Your task to perform on an android device: install app "Google News" Image 0: 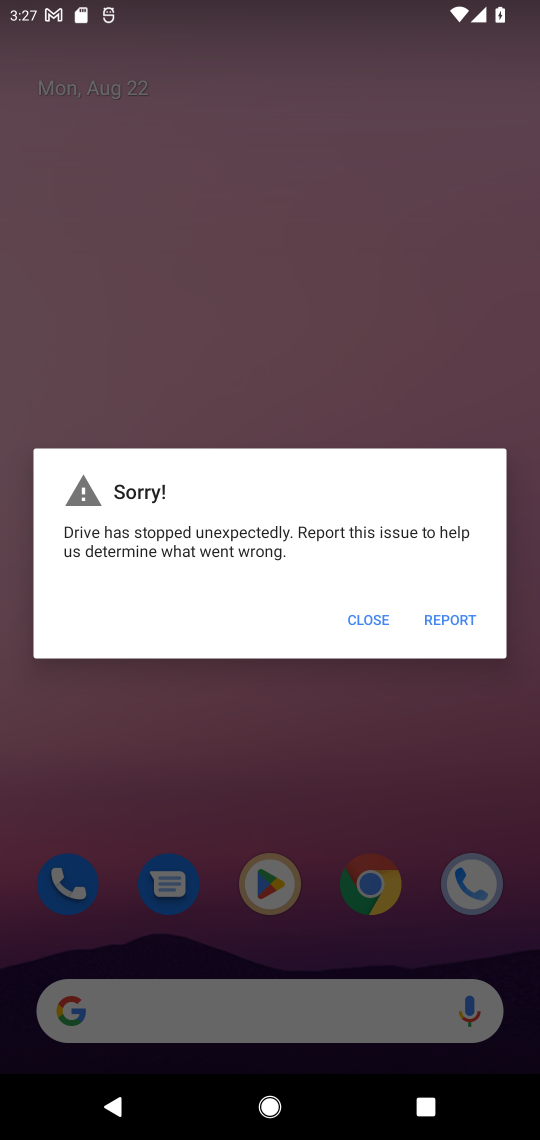
Step 0: click (369, 613)
Your task to perform on an android device: install app "Google News" Image 1: 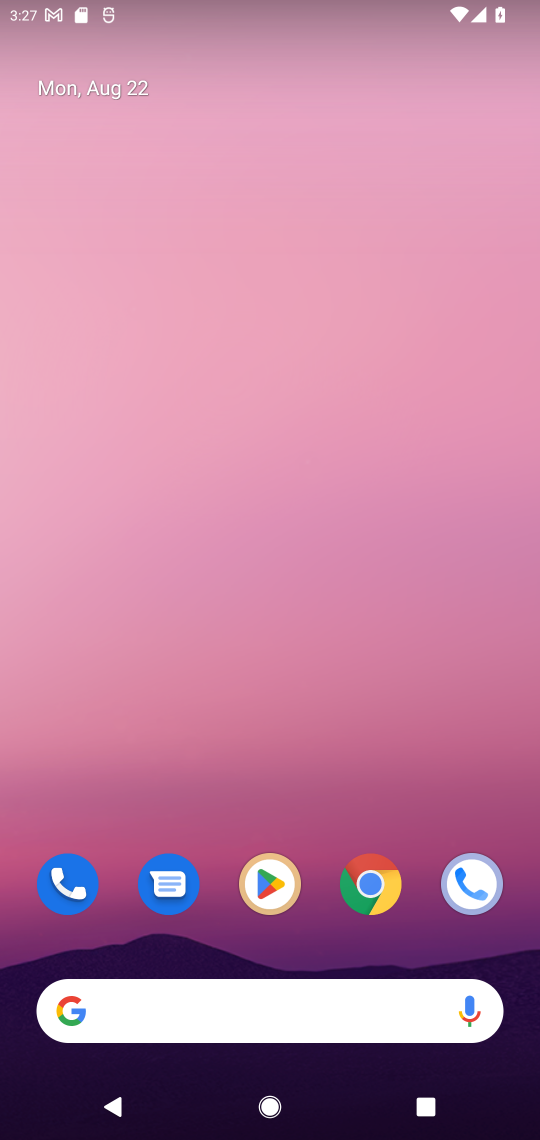
Step 1: click (251, 903)
Your task to perform on an android device: install app "Google News" Image 2: 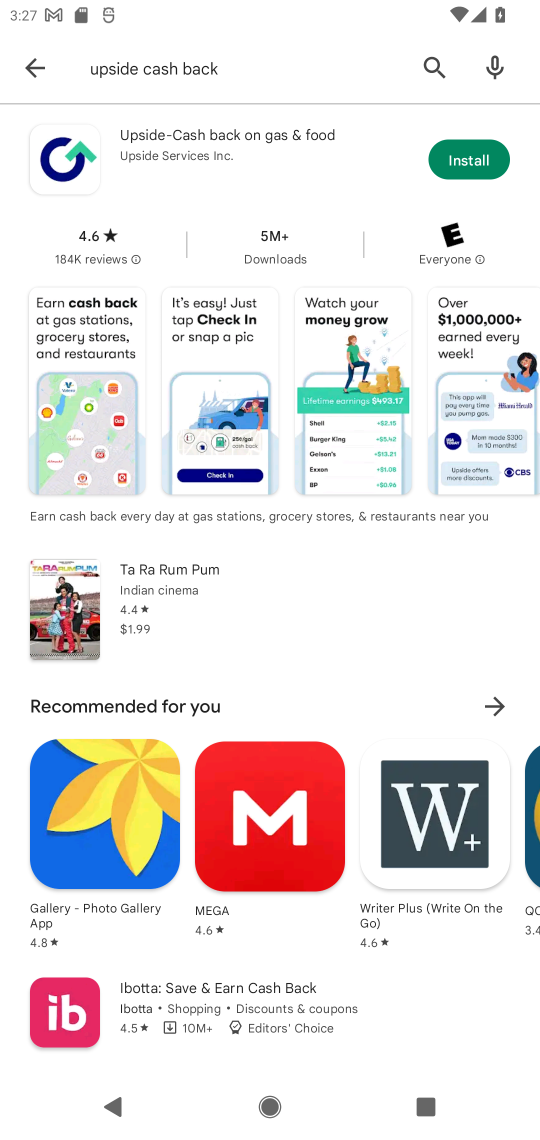
Step 2: click (242, 115)
Your task to perform on an android device: install app "Google News" Image 3: 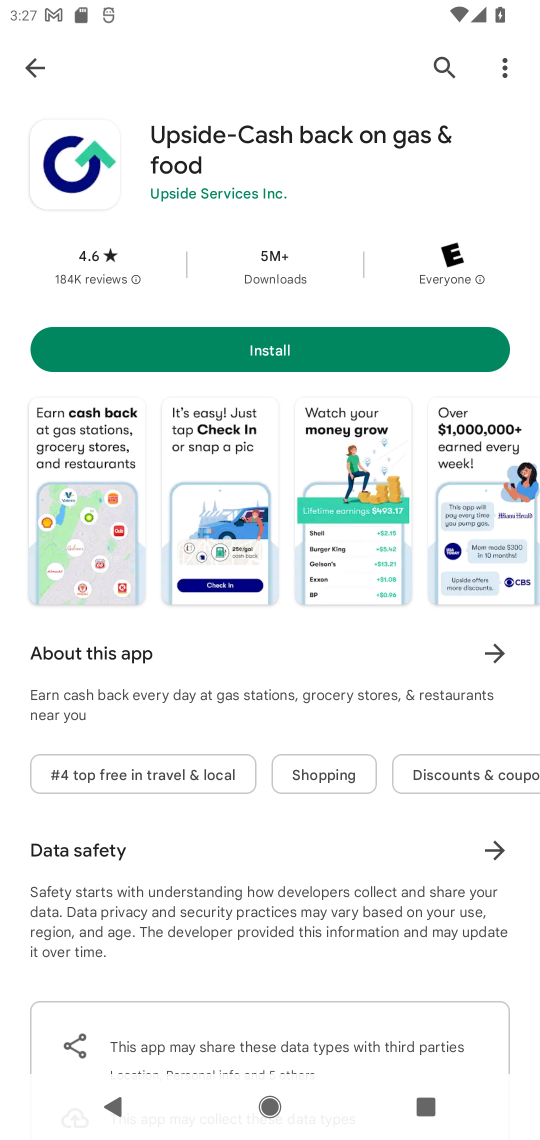
Step 3: click (22, 58)
Your task to perform on an android device: install app "Google News" Image 4: 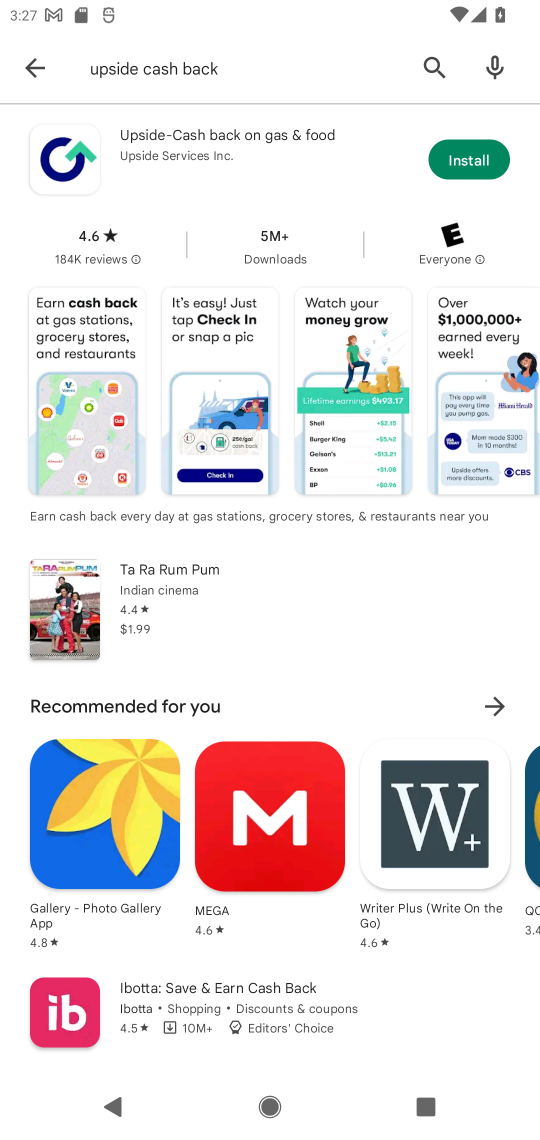
Step 4: click (232, 79)
Your task to perform on an android device: install app "Google News" Image 5: 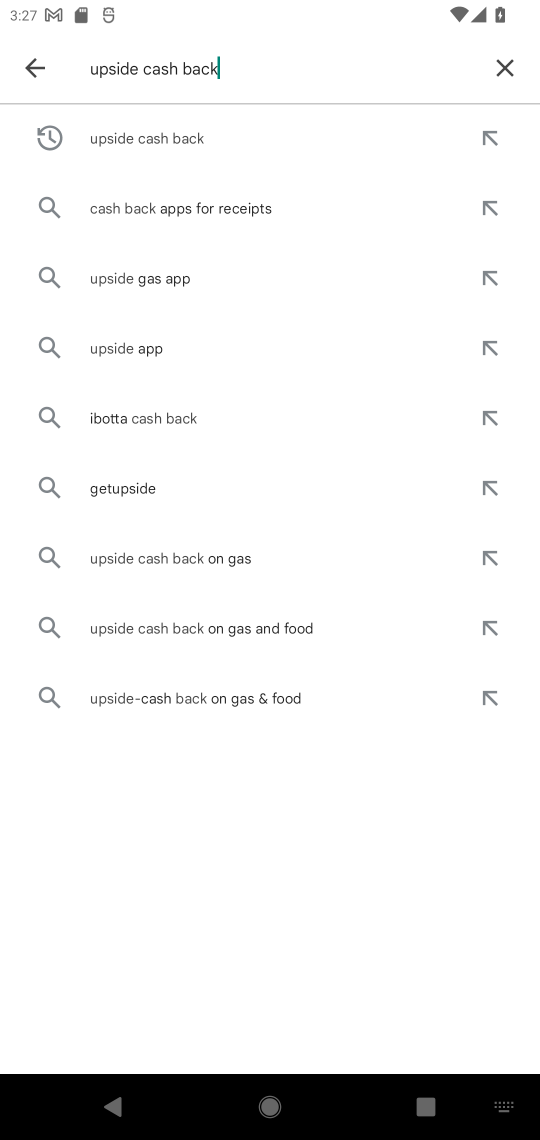
Step 5: click (511, 56)
Your task to perform on an android device: install app "Google News" Image 6: 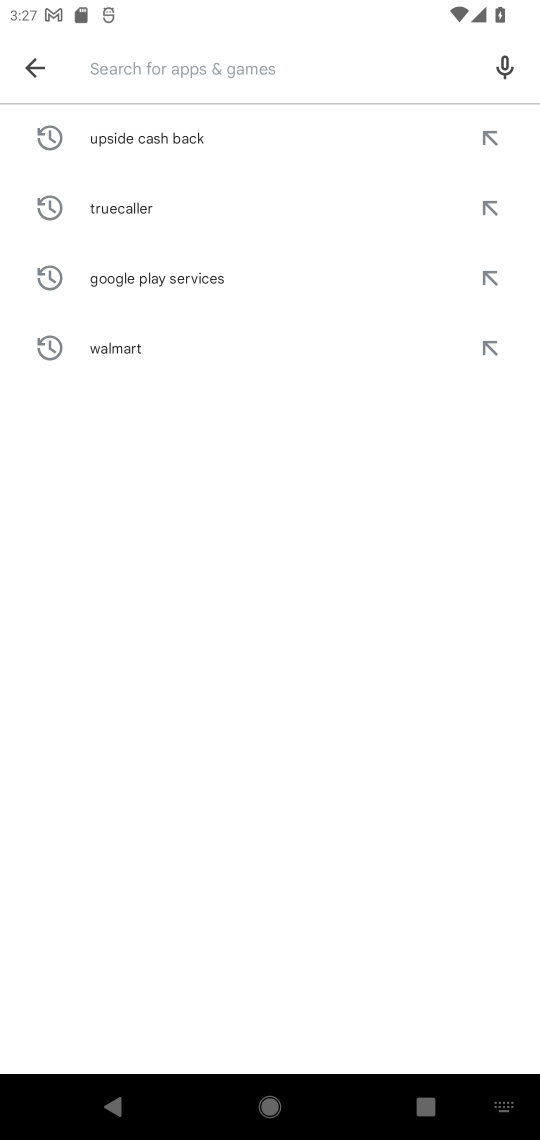
Step 6: type "google news"
Your task to perform on an android device: install app "Google News" Image 7: 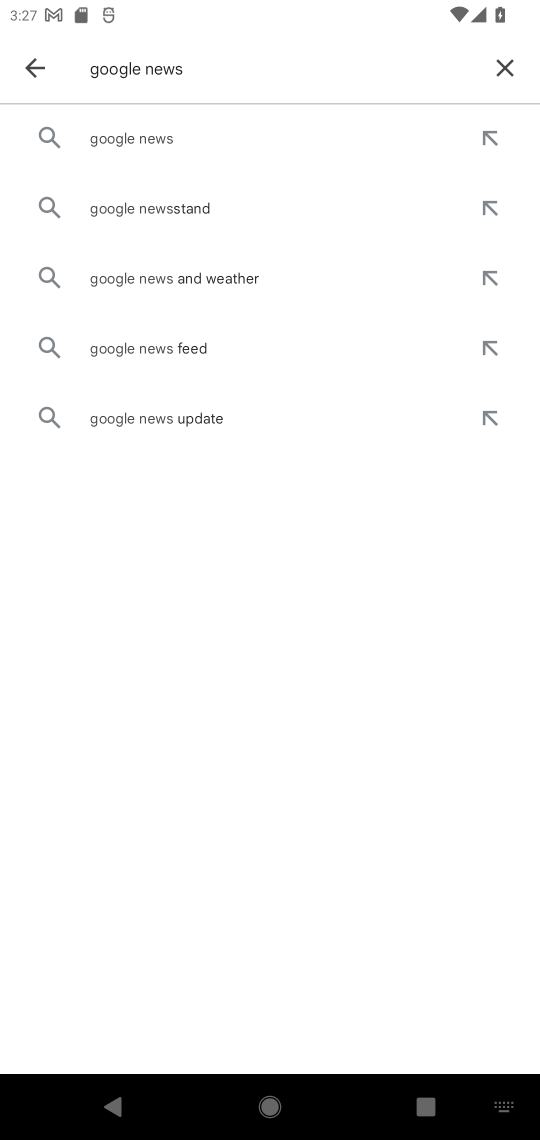
Step 7: click (154, 139)
Your task to perform on an android device: install app "Google News" Image 8: 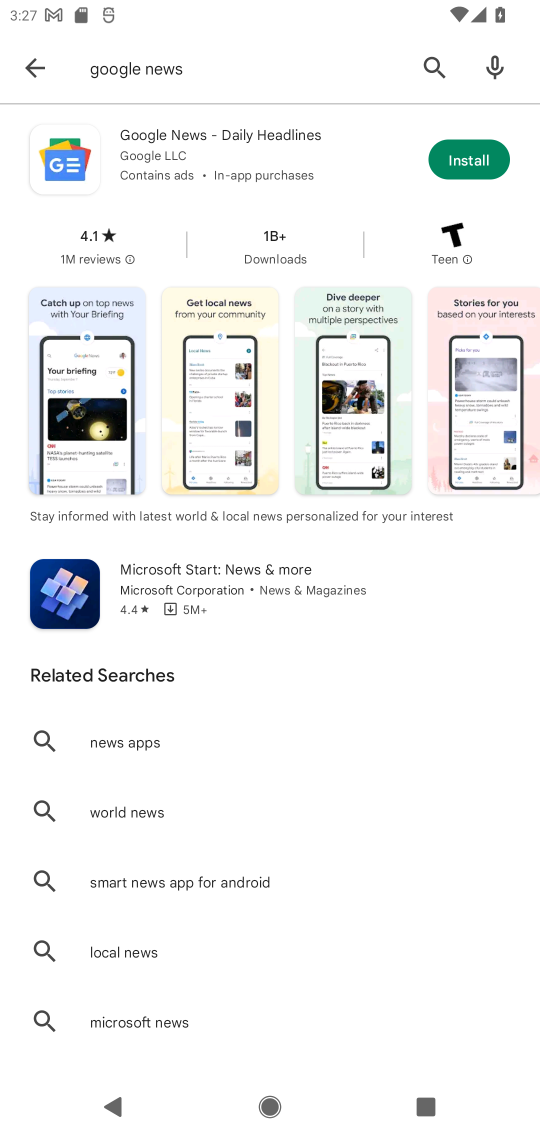
Step 8: click (449, 153)
Your task to perform on an android device: install app "Google News" Image 9: 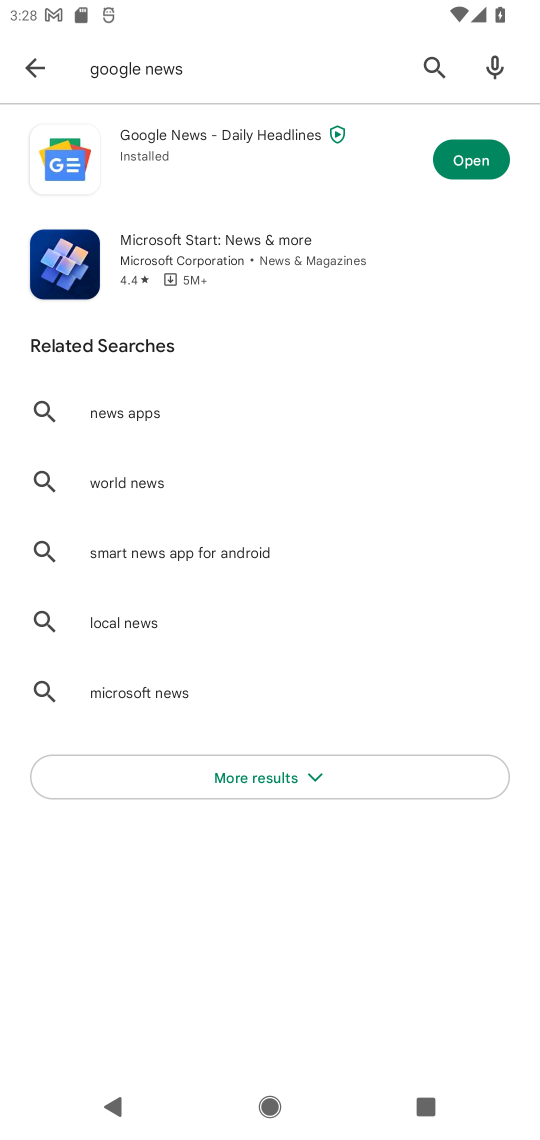
Step 9: task complete